Your task to perform on an android device: Open CNN.com Image 0: 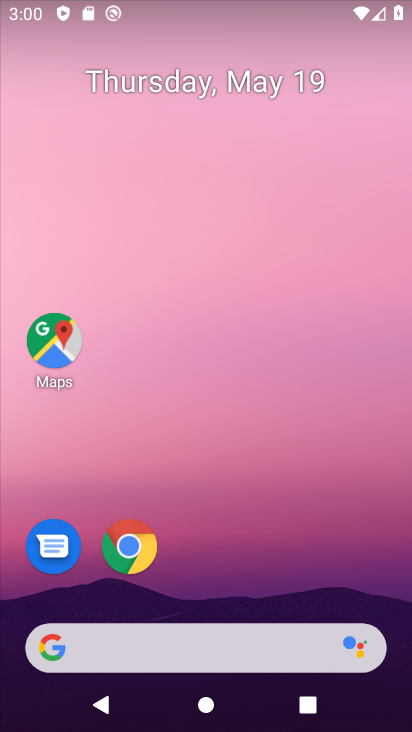
Step 0: press home button
Your task to perform on an android device: Open CNN.com Image 1: 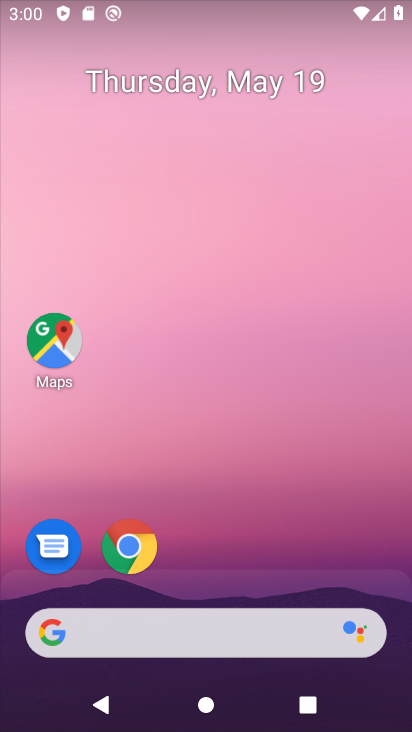
Step 1: click (129, 540)
Your task to perform on an android device: Open CNN.com Image 2: 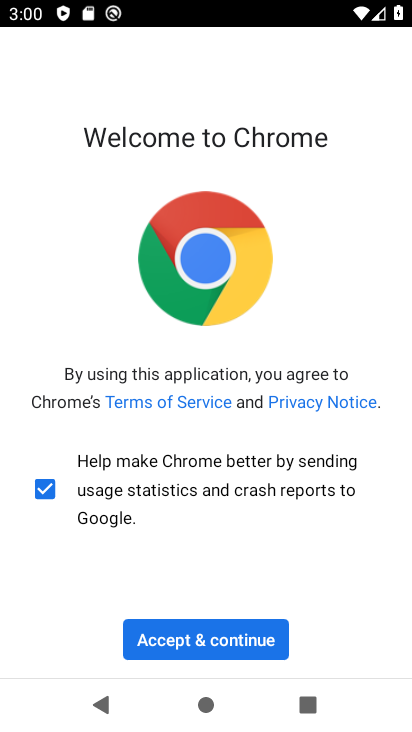
Step 2: click (203, 633)
Your task to perform on an android device: Open CNN.com Image 3: 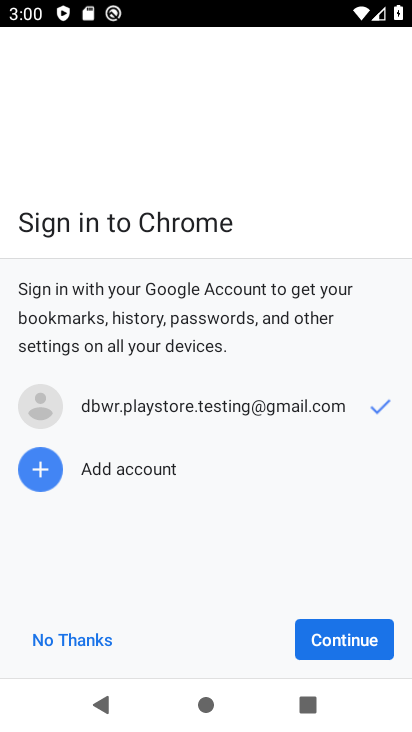
Step 3: click (345, 631)
Your task to perform on an android device: Open CNN.com Image 4: 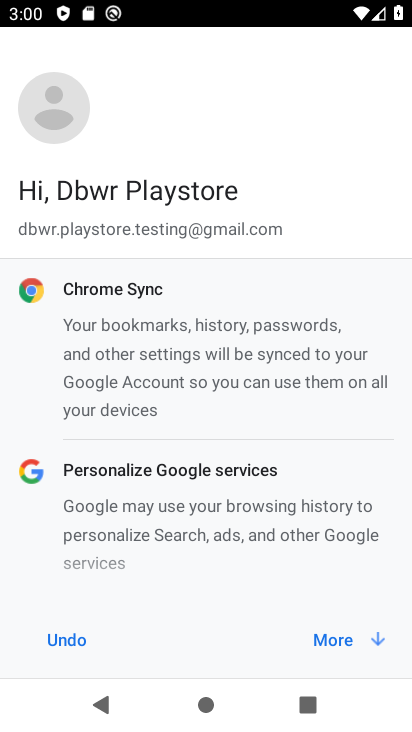
Step 4: click (338, 633)
Your task to perform on an android device: Open CNN.com Image 5: 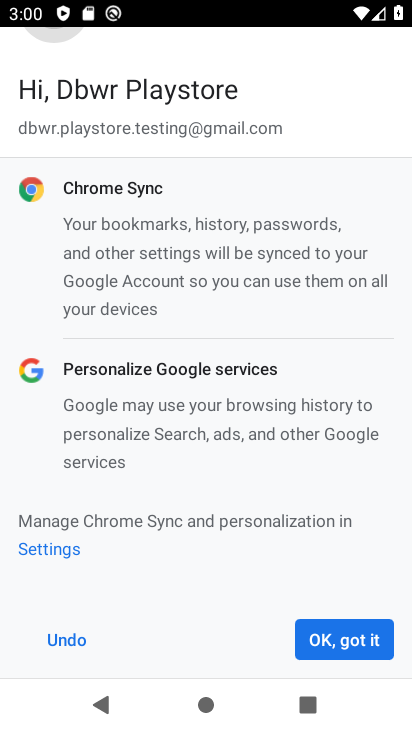
Step 5: click (347, 636)
Your task to perform on an android device: Open CNN.com Image 6: 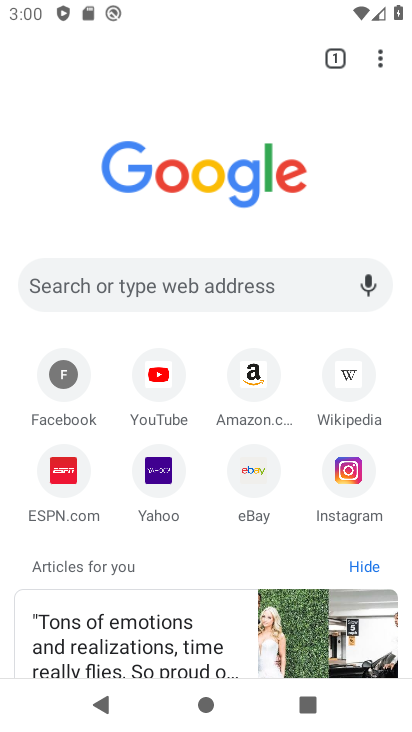
Step 6: click (127, 276)
Your task to perform on an android device: Open CNN.com Image 7: 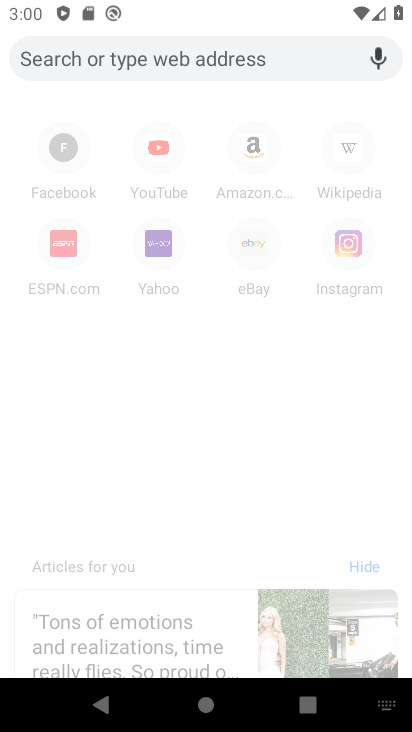
Step 7: type "cnn.com"
Your task to perform on an android device: Open CNN.com Image 8: 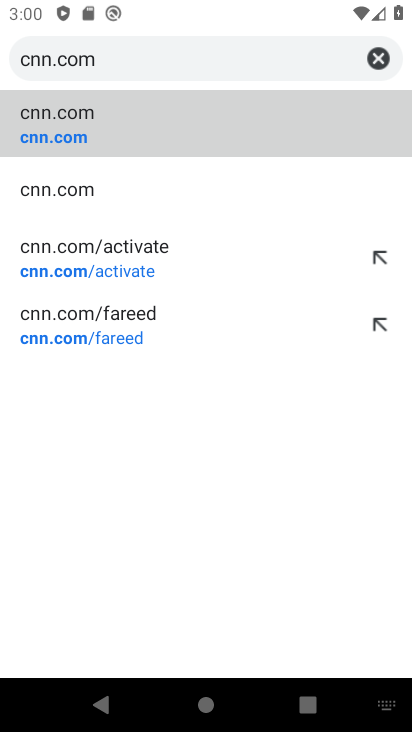
Step 8: click (74, 125)
Your task to perform on an android device: Open CNN.com Image 9: 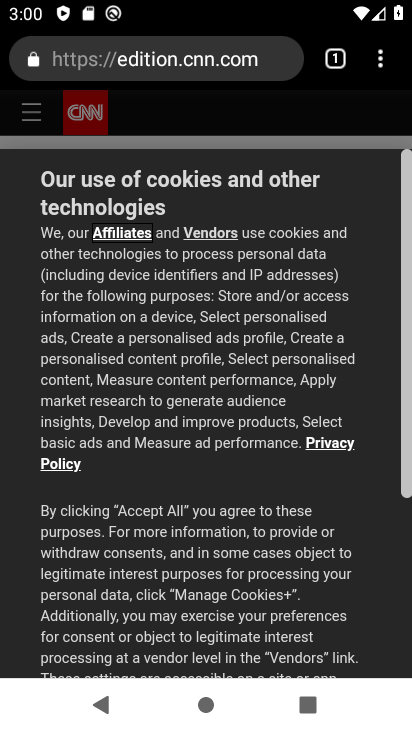
Step 9: drag from (209, 566) to (263, 128)
Your task to perform on an android device: Open CNN.com Image 10: 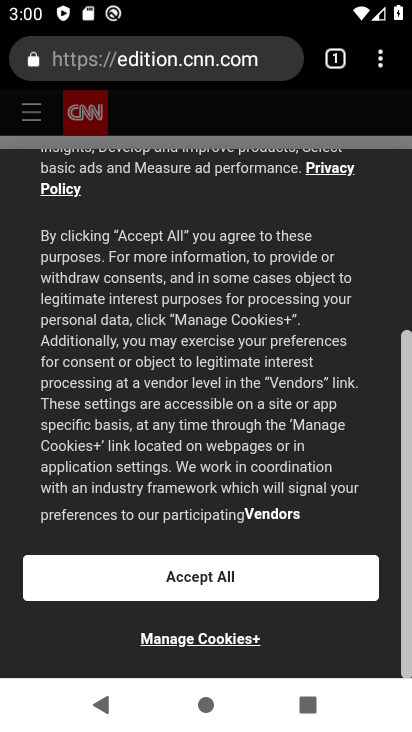
Step 10: click (202, 569)
Your task to perform on an android device: Open CNN.com Image 11: 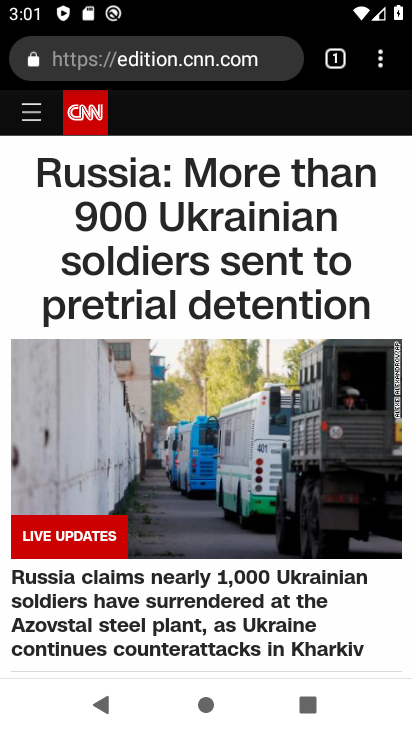
Step 11: task complete